Your task to perform on an android device: Go to Maps Image 0: 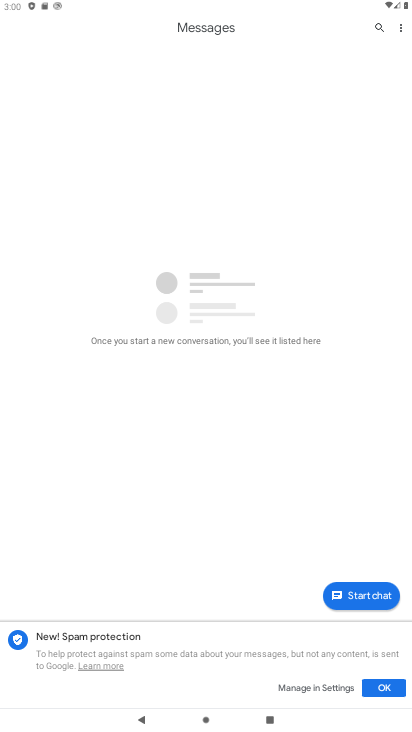
Step 0: press home button
Your task to perform on an android device: Go to Maps Image 1: 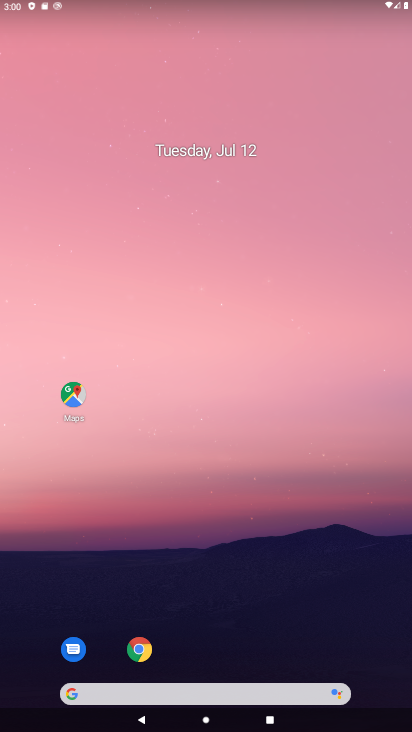
Step 1: click (80, 398)
Your task to perform on an android device: Go to Maps Image 2: 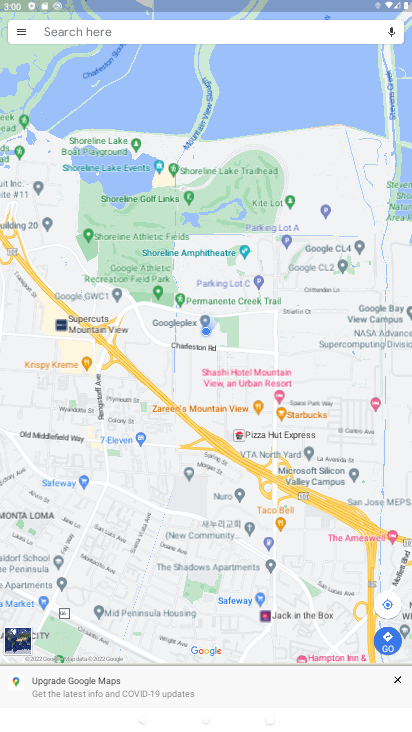
Step 2: task complete